Your task to perform on an android device: Open the calendar app, open the side menu, and click the "Day" option Image 0: 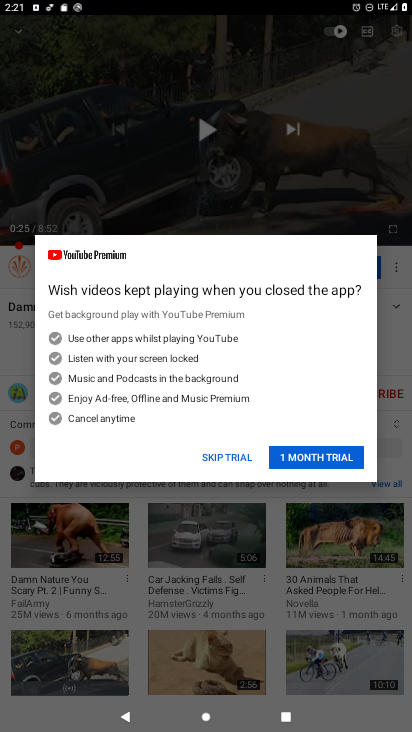
Step 0: press home button
Your task to perform on an android device: Open the calendar app, open the side menu, and click the "Day" option Image 1: 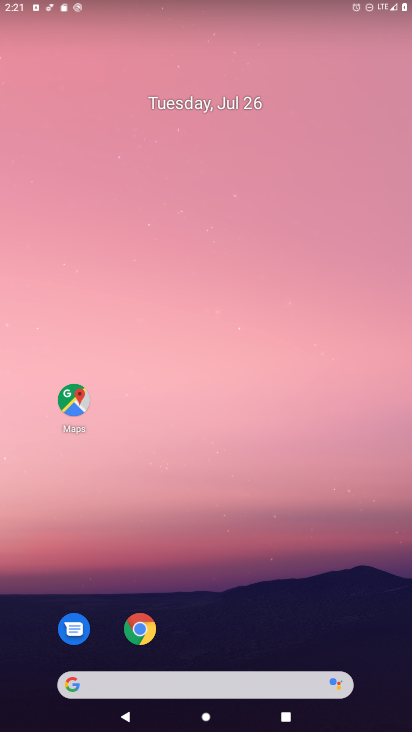
Step 1: drag from (388, 671) to (362, 145)
Your task to perform on an android device: Open the calendar app, open the side menu, and click the "Day" option Image 2: 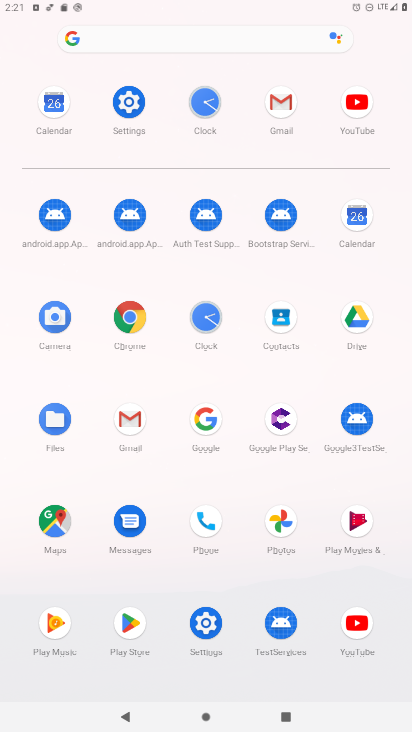
Step 2: click (355, 220)
Your task to perform on an android device: Open the calendar app, open the side menu, and click the "Day" option Image 3: 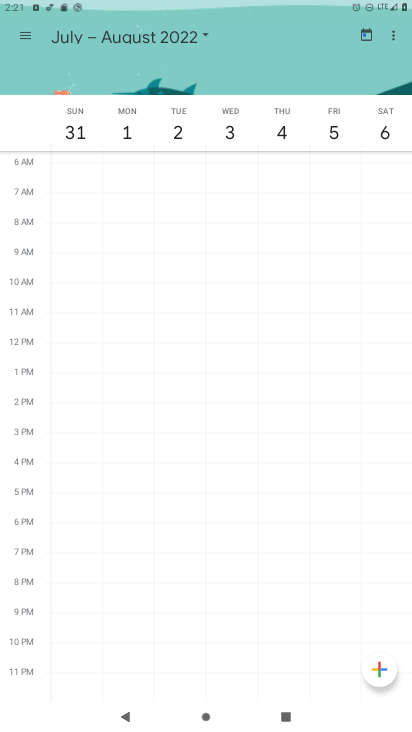
Step 3: click (26, 37)
Your task to perform on an android device: Open the calendar app, open the side menu, and click the "Day" option Image 4: 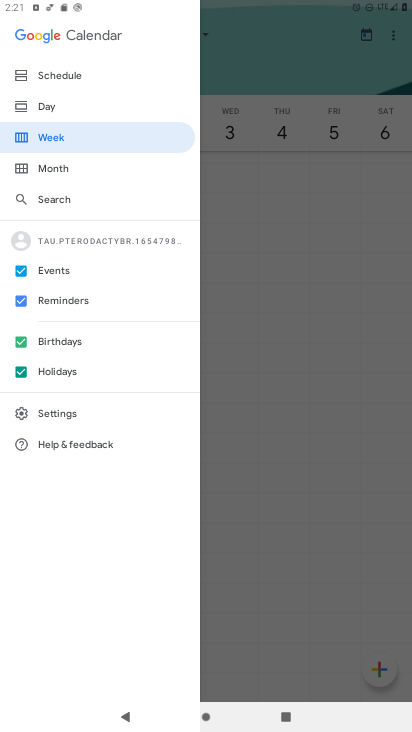
Step 4: click (44, 99)
Your task to perform on an android device: Open the calendar app, open the side menu, and click the "Day" option Image 5: 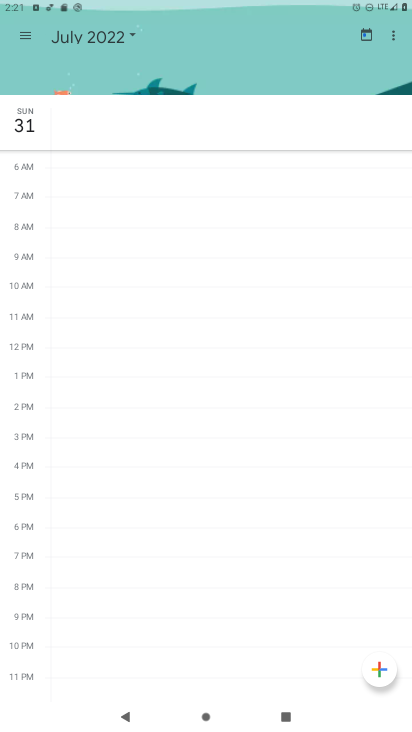
Step 5: task complete